Your task to perform on an android device: Go to calendar. Show me events next week Image 0: 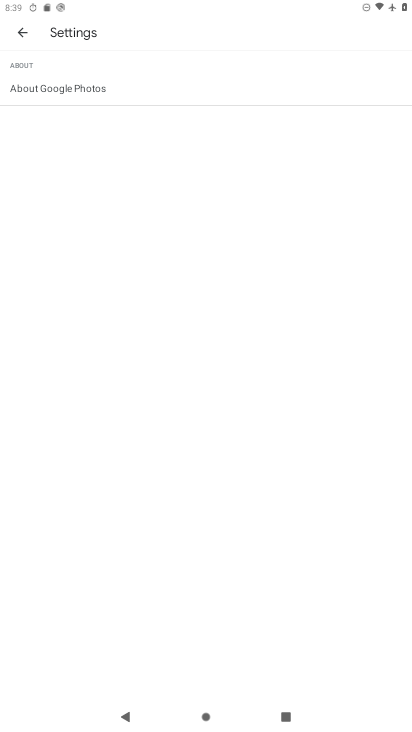
Step 0: press home button
Your task to perform on an android device: Go to calendar. Show me events next week Image 1: 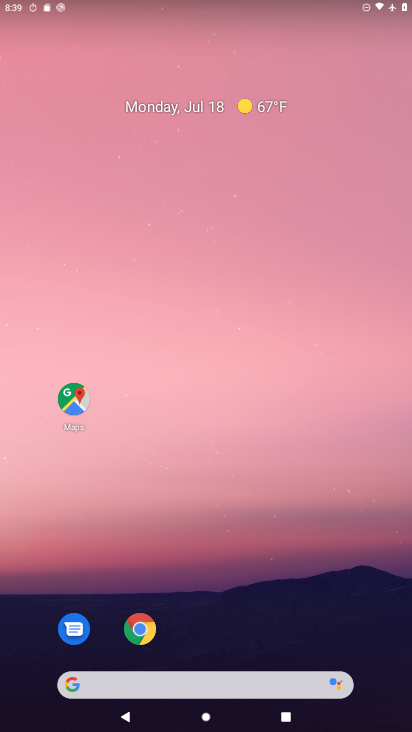
Step 1: drag from (248, 654) to (277, 94)
Your task to perform on an android device: Go to calendar. Show me events next week Image 2: 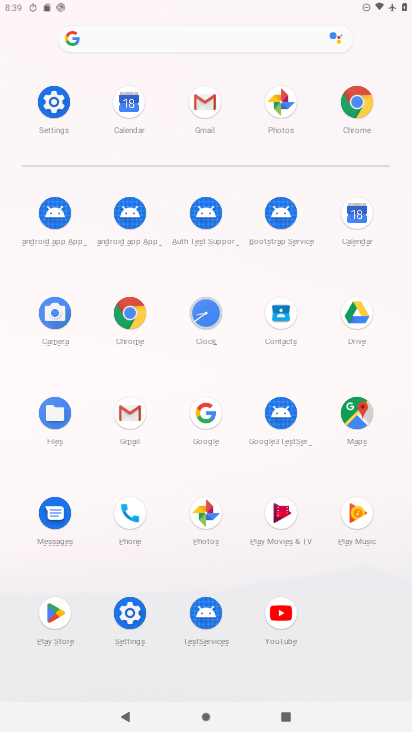
Step 2: click (359, 203)
Your task to perform on an android device: Go to calendar. Show me events next week Image 3: 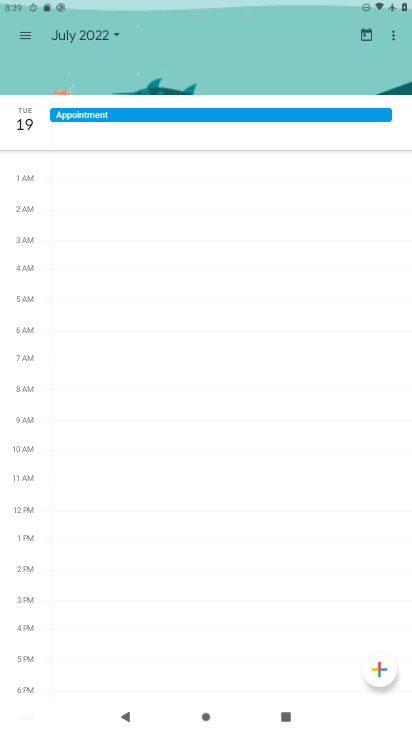
Step 3: click (26, 32)
Your task to perform on an android device: Go to calendar. Show me events next week Image 4: 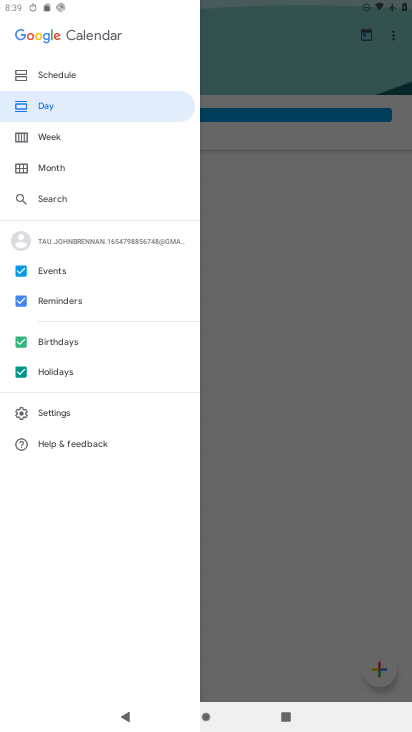
Step 4: click (55, 143)
Your task to perform on an android device: Go to calendar. Show me events next week Image 5: 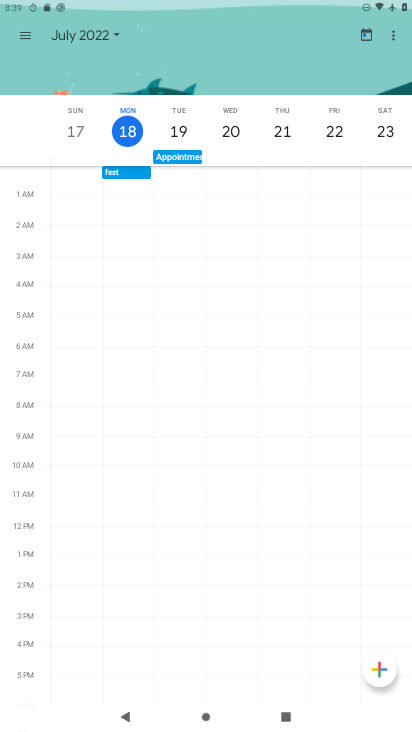
Step 5: task complete